Your task to perform on an android device: open app "Google Calendar" (install if not already installed) Image 0: 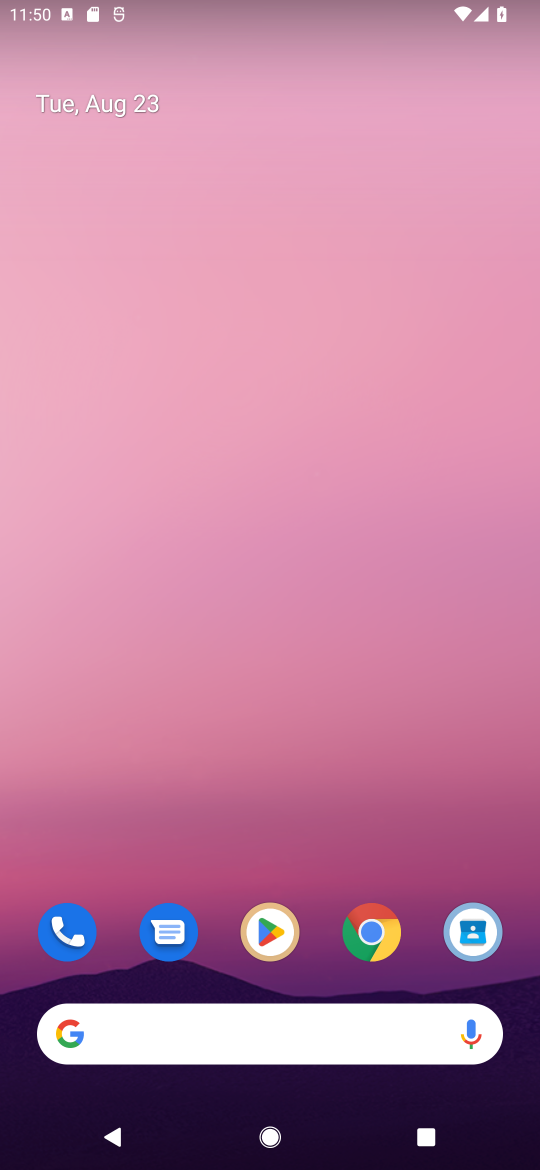
Step 0: drag from (238, 972) to (369, 209)
Your task to perform on an android device: open app "Google Calendar" (install if not already installed) Image 1: 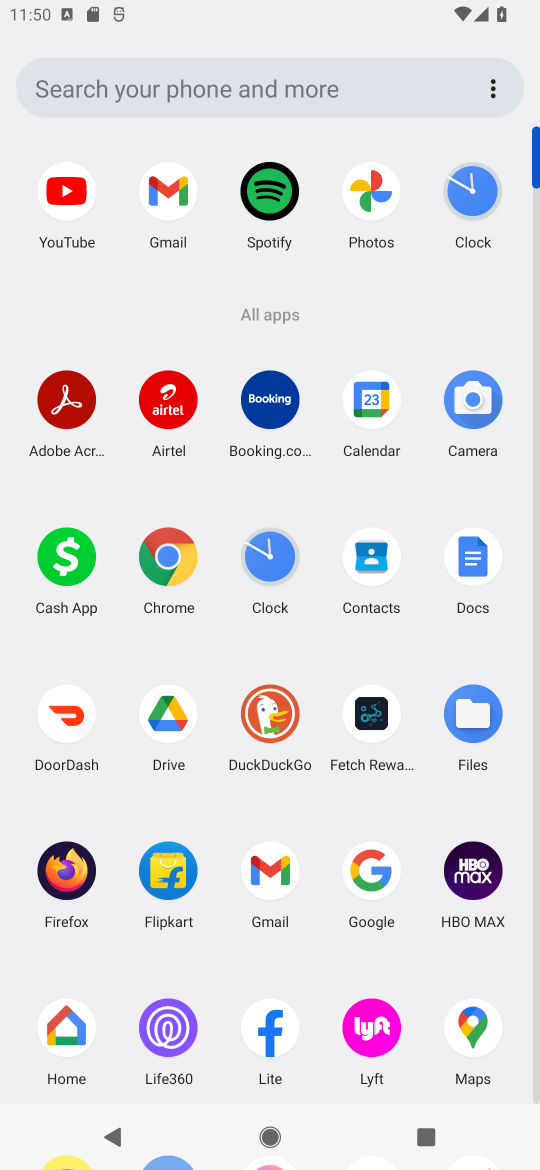
Step 1: click (391, 414)
Your task to perform on an android device: open app "Google Calendar" (install if not already installed) Image 2: 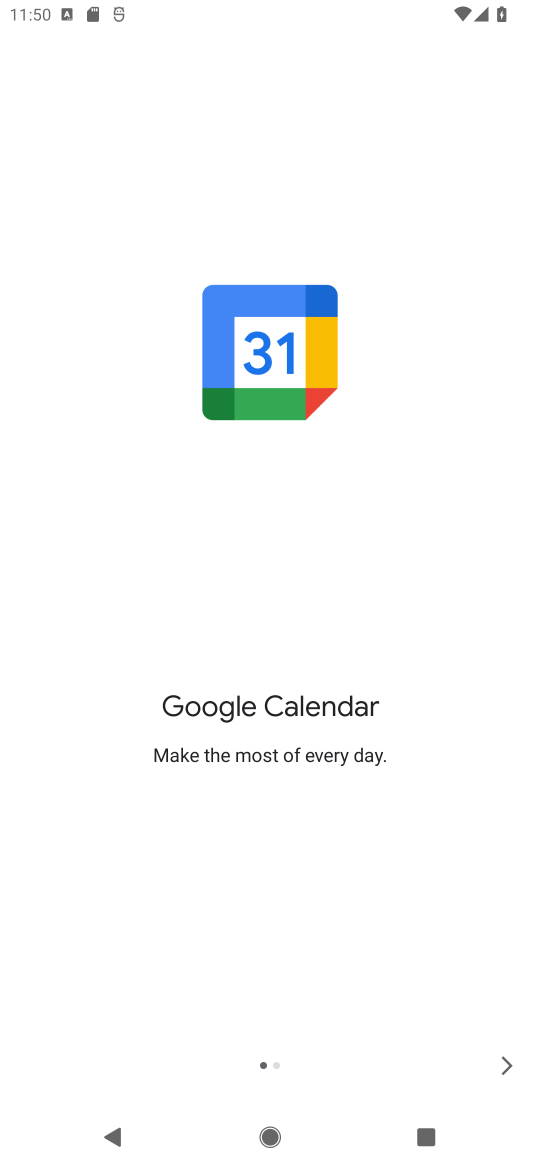
Step 2: click (499, 1063)
Your task to perform on an android device: open app "Google Calendar" (install if not already installed) Image 3: 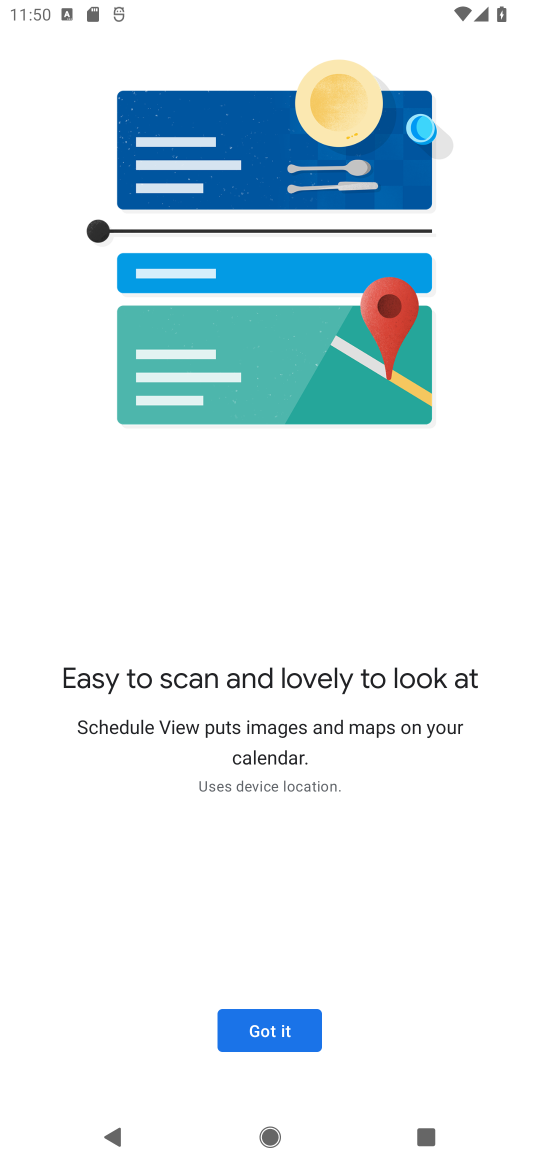
Step 3: click (246, 1039)
Your task to perform on an android device: open app "Google Calendar" (install if not already installed) Image 4: 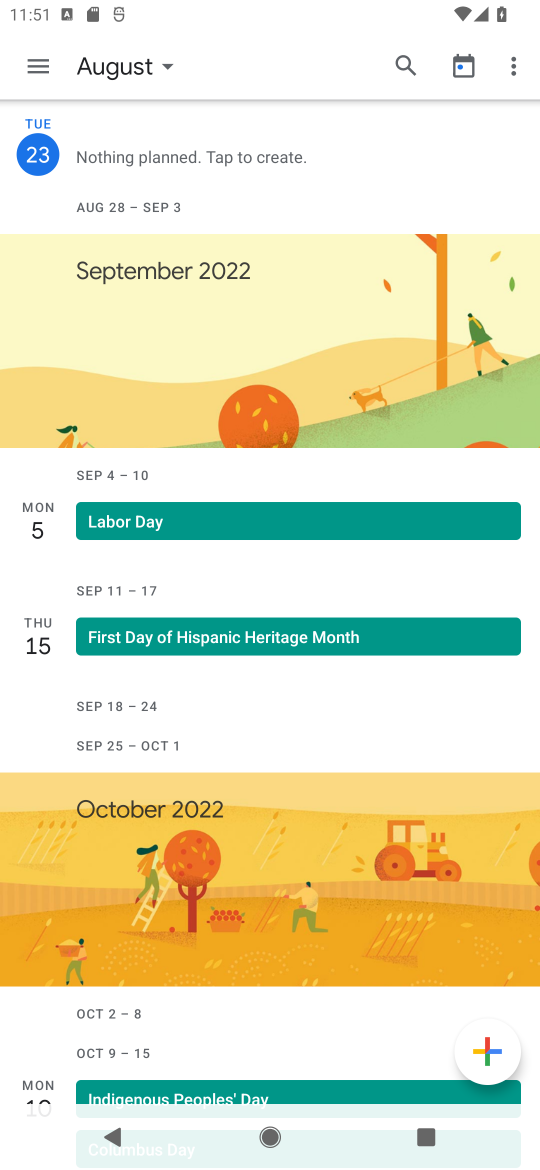
Step 4: task complete